Your task to perform on an android device: open sync settings in chrome Image 0: 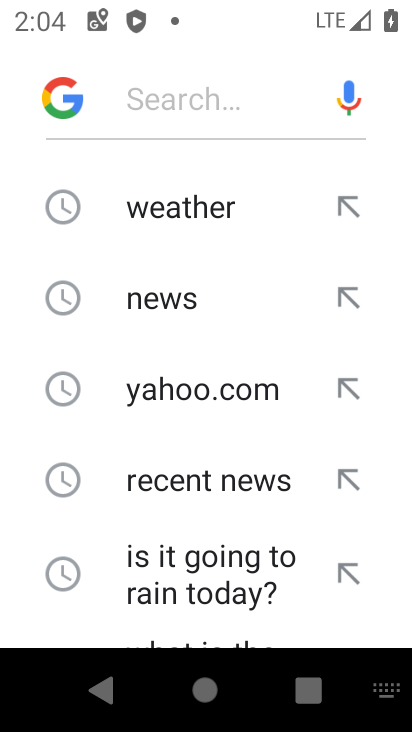
Step 0: press home button
Your task to perform on an android device: open sync settings in chrome Image 1: 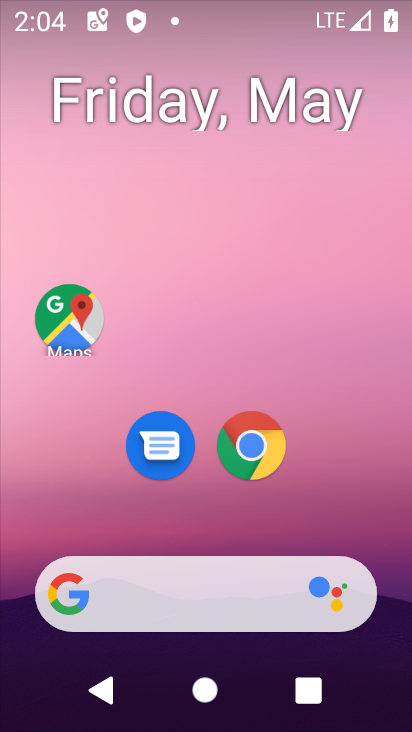
Step 1: click (251, 435)
Your task to perform on an android device: open sync settings in chrome Image 2: 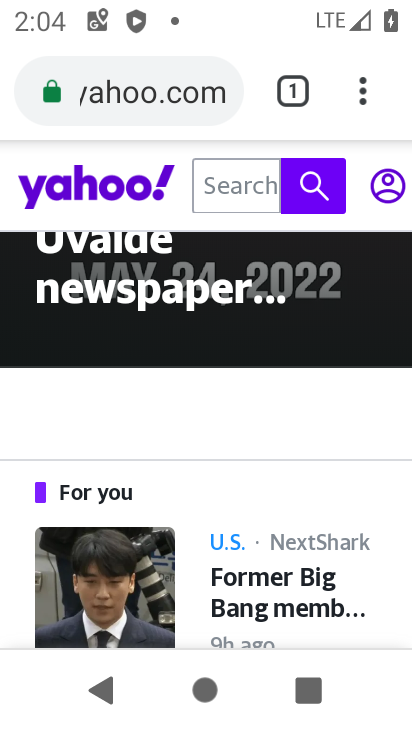
Step 2: click (365, 86)
Your task to perform on an android device: open sync settings in chrome Image 3: 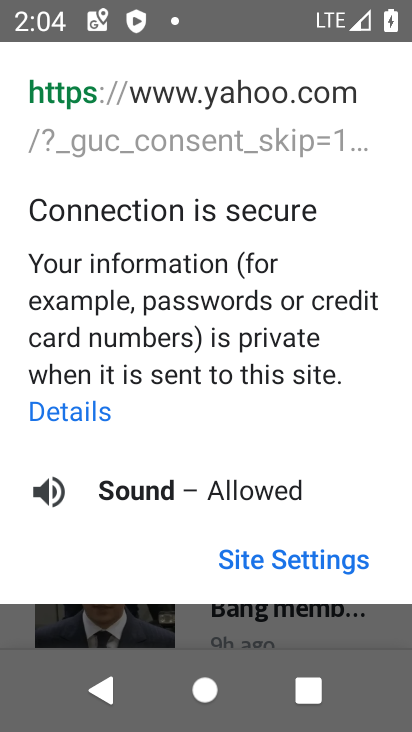
Step 3: click (174, 627)
Your task to perform on an android device: open sync settings in chrome Image 4: 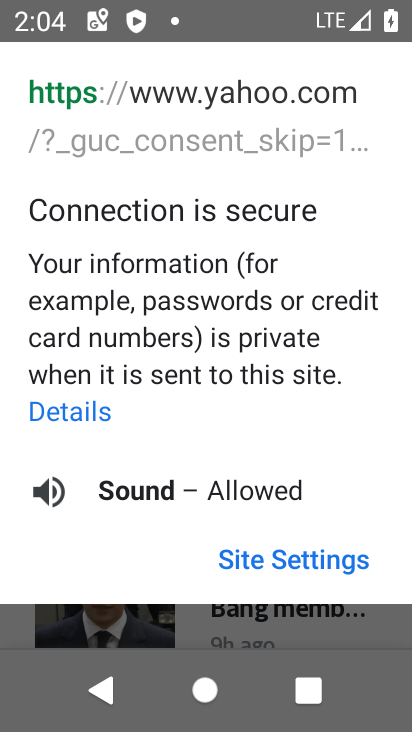
Step 4: click (165, 635)
Your task to perform on an android device: open sync settings in chrome Image 5: 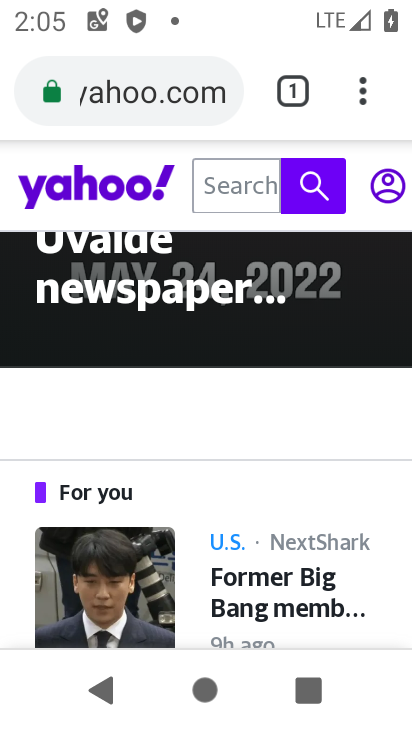
Step 5: click (355, 94)
Your task to perform on an android device: open sync settings in chrome Image 6: 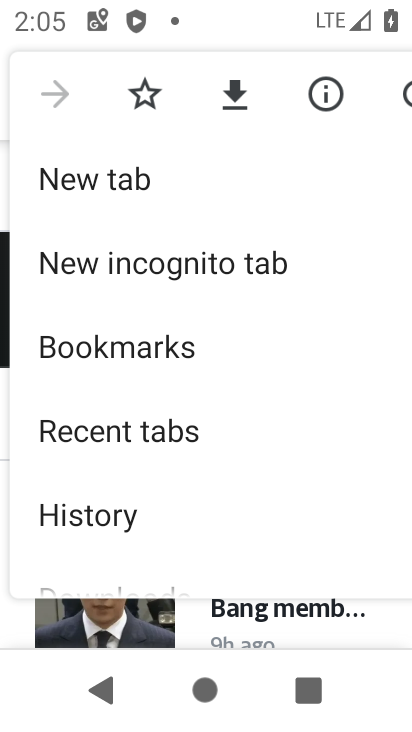
Step 6: drag from (178, 520) to (178, 135)
Your task to perform on an android device: open sync settings in chrome Image 7: 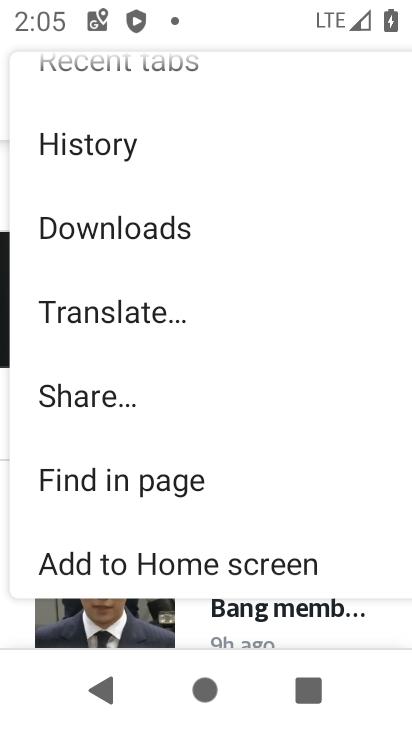
Step 7: drag from (197, 524) to (210, 63)
Your task to perform on an android device: open sync settings in chrome Image 8: 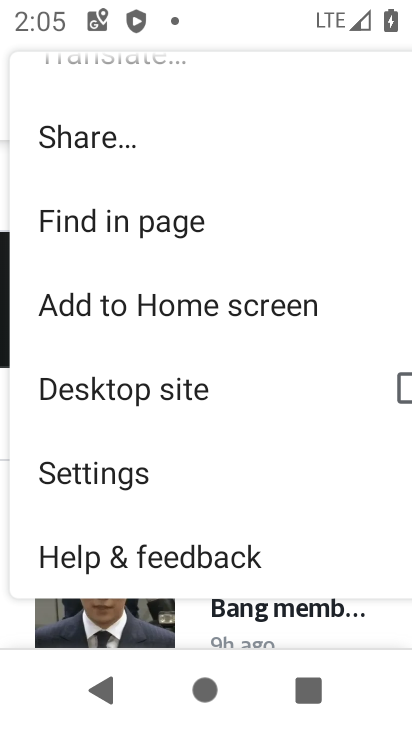
Step 8: click (160, 476)
Your task to perform on an android device: open sync settings in chrome Image 9: 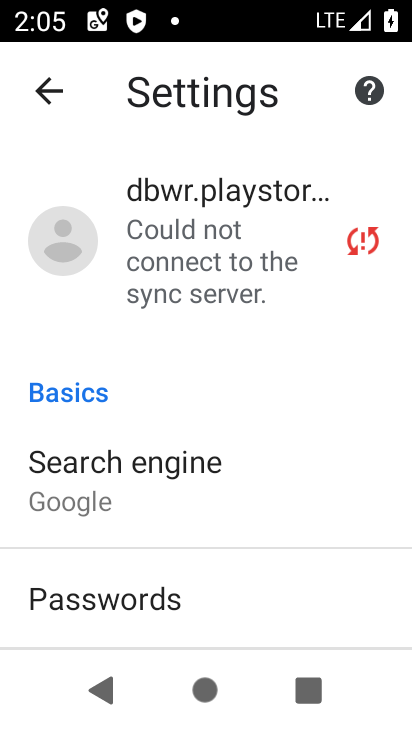
Step 9: drag from (231, 593) to (212, 119)
Your task to perform on an android device: open sync settings in chrome Image 10: 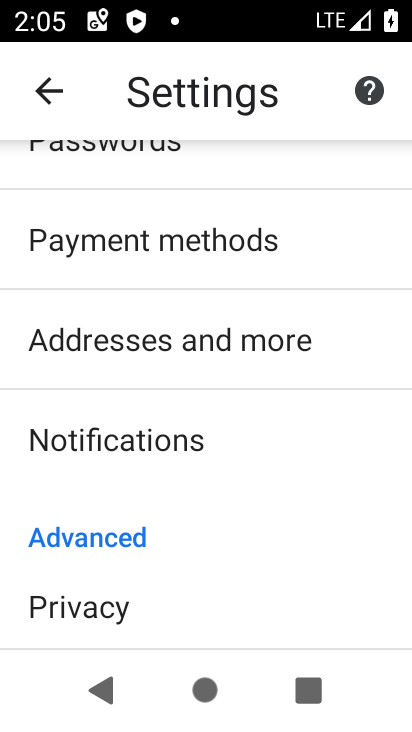
Step 10: drag from (196, 578) to (224, 25)
Your task to perform on an android device: open sync settings in chrome Image 11: 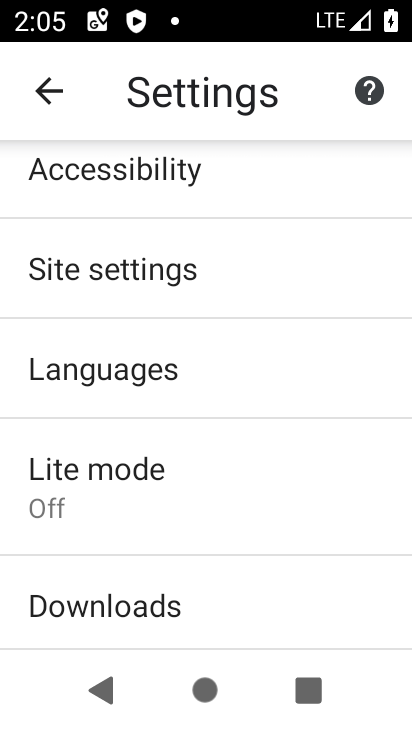
Step 11: drag from (215, 168) to (207, 610)
Your task to perform on an android device: open sync settings in chrome Image 12: 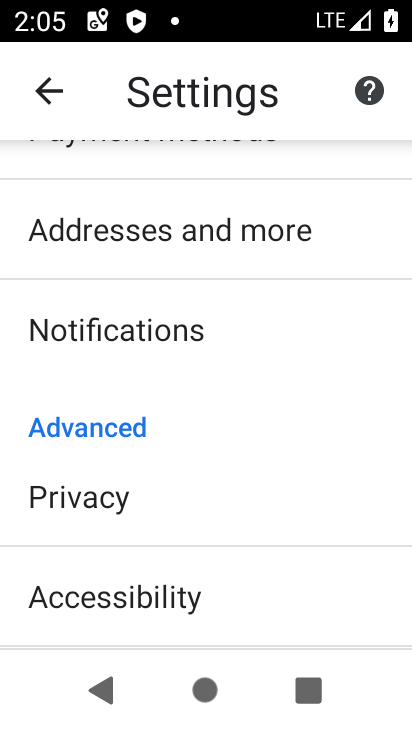
Step 12: drag from (238, 169) to (236, 669)
Your task to perform on an android device: open sync settings in chrome Image 13: 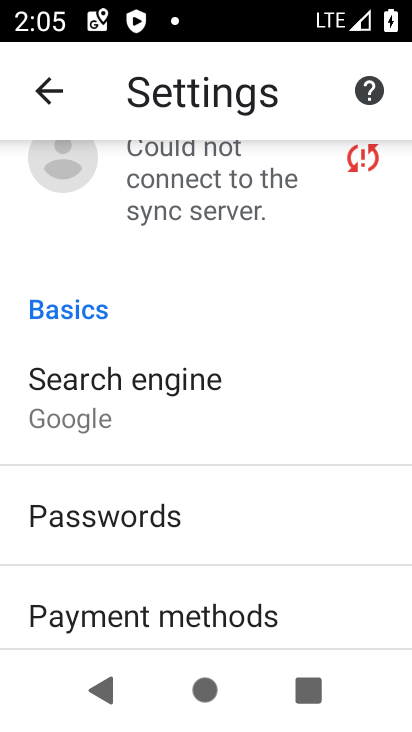
Step 13: click (184, 165)
Your task to perform on an android device: open sync settings in chrome Image 14: 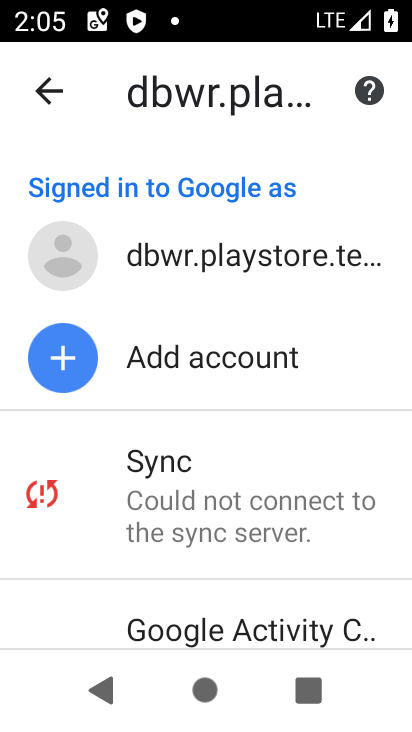
Step 14: click (226, 500)
Your task to perform on an android device: open sync settings in chrome Image 15: 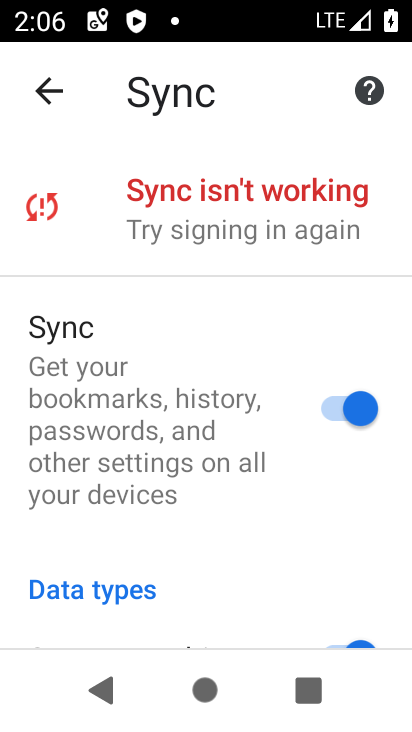
Step 15: task complete